Your task to perform on an android device: set an alarm Image 0: 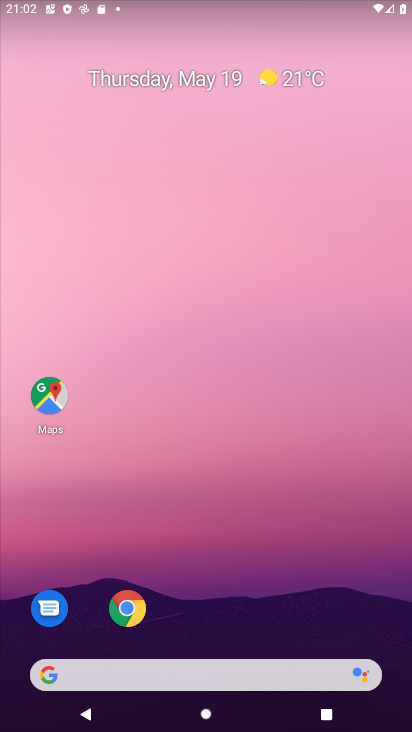
Step 0: drag from (259, 530) to (209, 71)
Your task to perform on an android device: set an alarm Image 1: 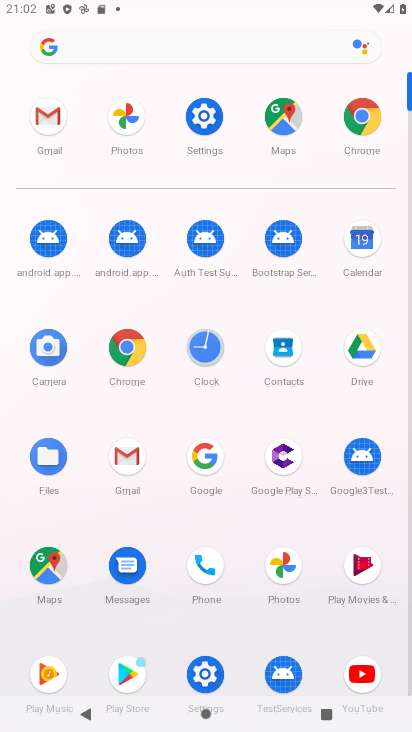
Step 1: click (205, 345)
Your task to perform on an android device: set an alarm Image 2: 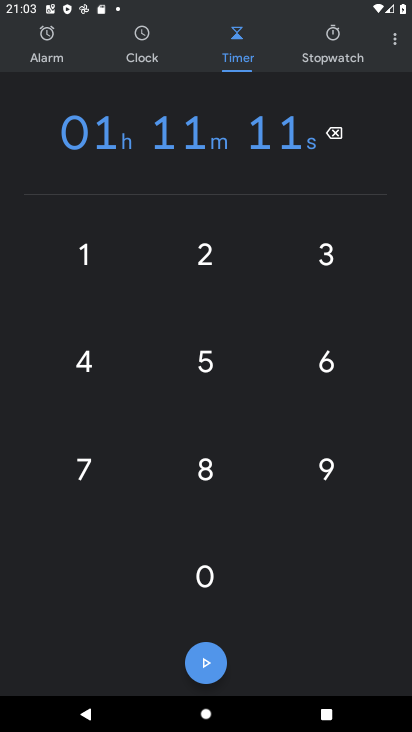
Step 2: click (43, 39)
Your task to perform on an android device: set an alarm Image 3: 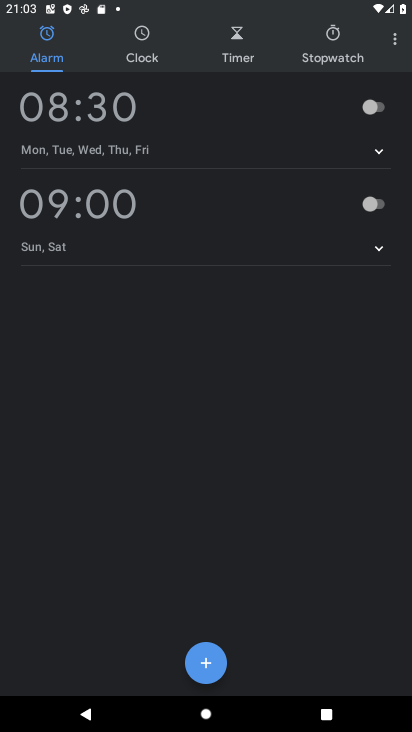
Step 3: click (211, 667)
Your task to perform on an android device: set an alarm Image 4: 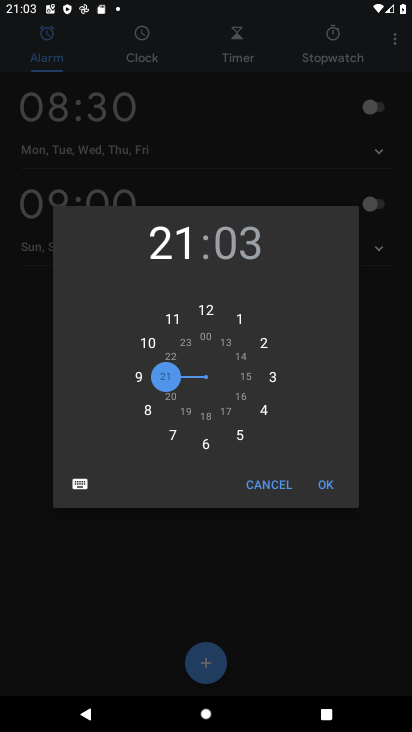
Step 4: click (325, 474)
Your task to perform on an android device: set an alarm Image 5: 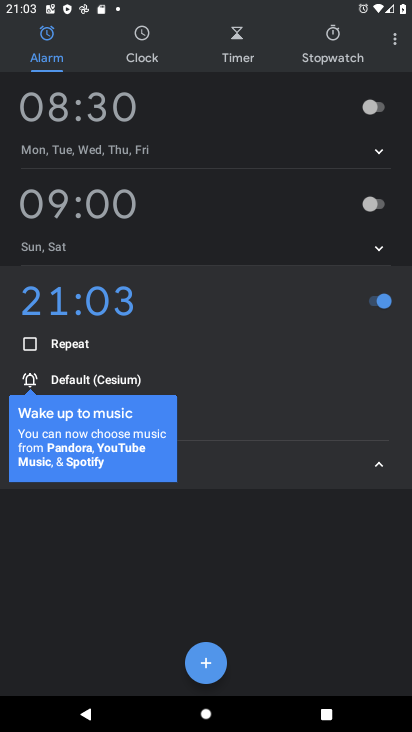
Step 5: task complete